Your task to perform on an android device: Open Wikipedia Image 0: 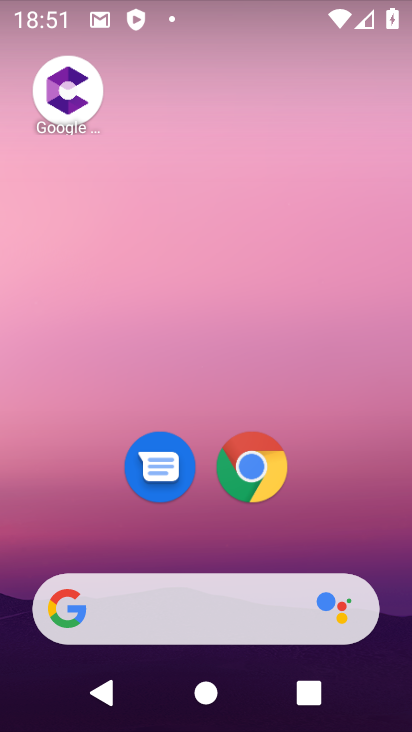
Step 0: click (250, 470)
Your task to perform on an android device: Open Wikipedia Image 1: 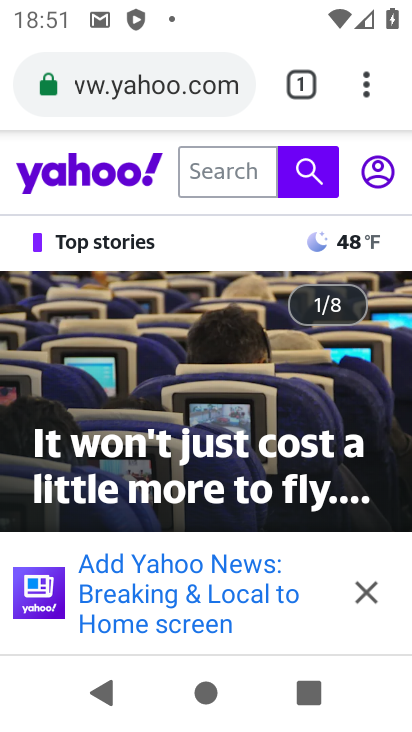
Step 1: click (366, 84)
Your task to perform on an android device: Open Wikipedia Image 2: 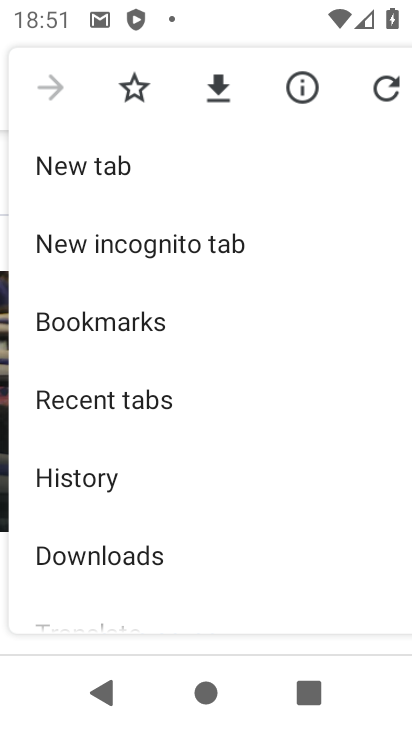
Step 2: click (102, 164)
Your task to perform on an android device: Open Wikipedia Image 3: 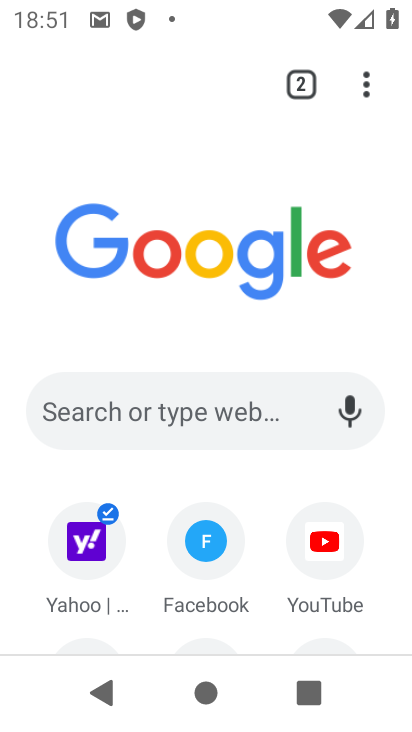
Step 3: drag from (255, 546) to (255, 286)
Your task to perform on an android device: Open Wikipedia Image 4: 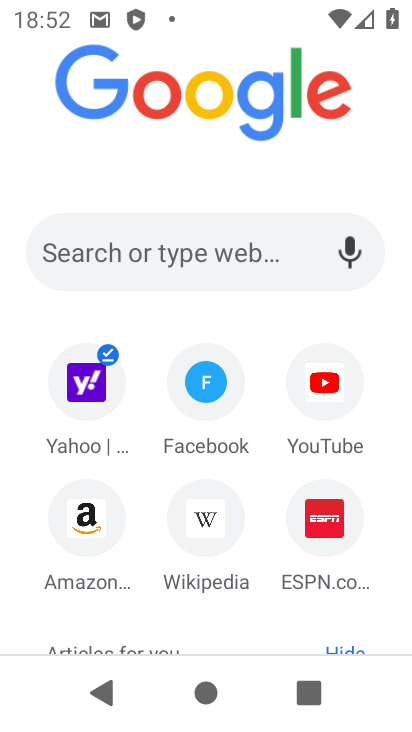
Step 4: click (205, 530)
Your task to perform on an android device: Open Wikipedia Image 5: 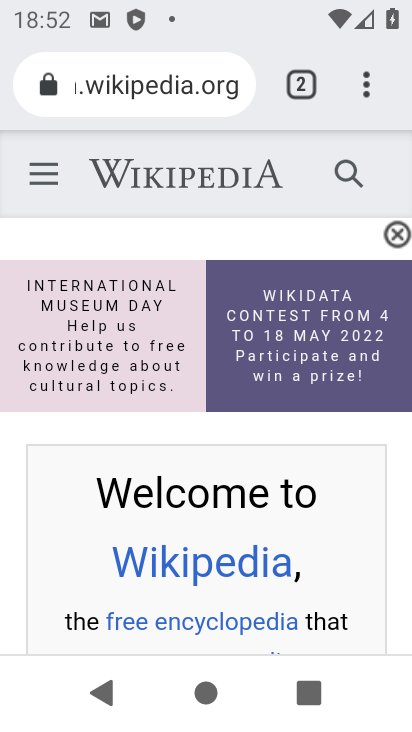
Step 5: task complete